Your task to perform on an android device: install app "PlayWell" Image 0: 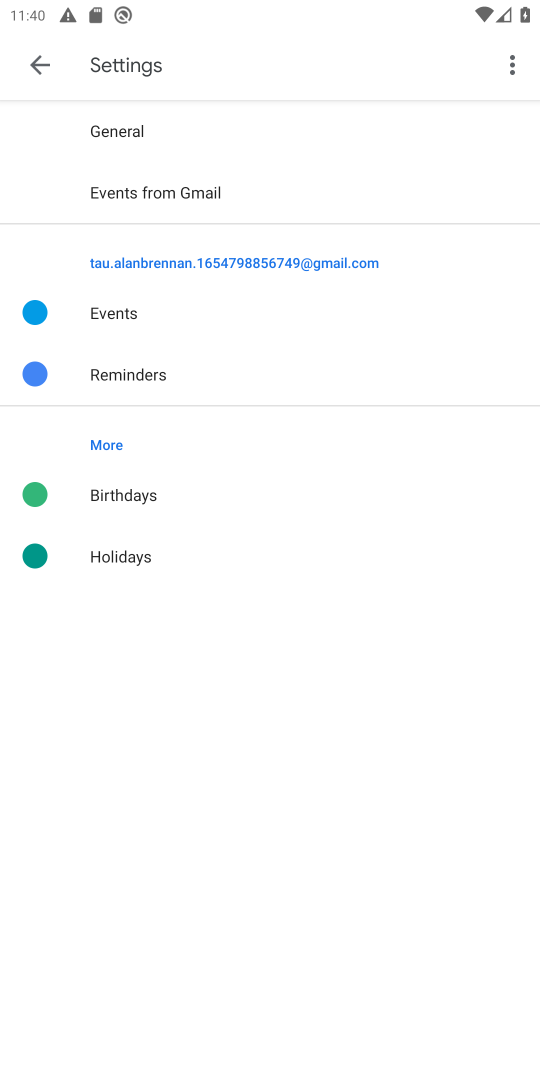
Step 0: press home button
Your task to perform on an android device: install app "PlayWell" Image 1: 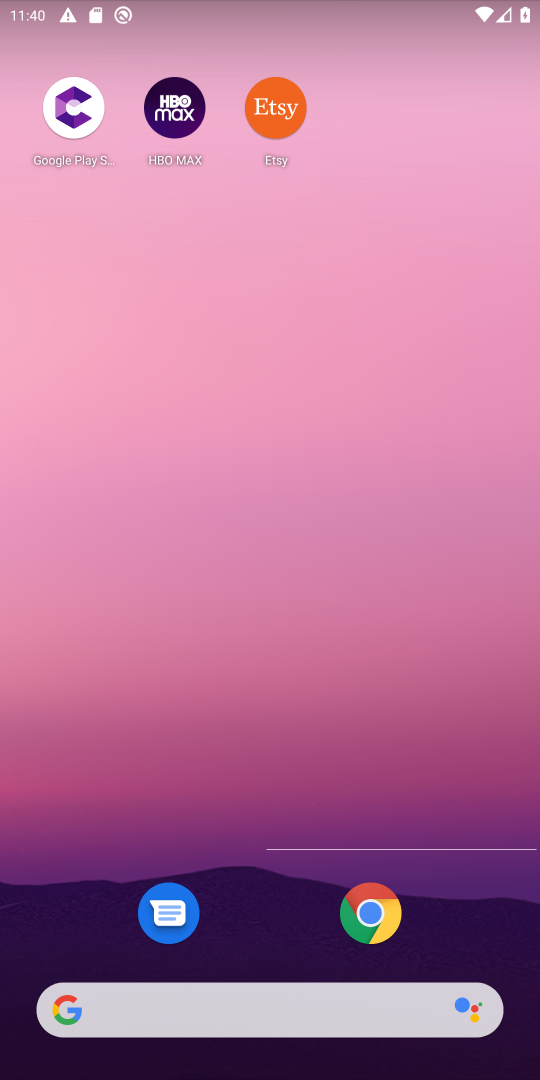
Step 1: drag from (209, 952) to (294, 304)
Your task to perform on an android device: install app "PlayWell" Image 2: 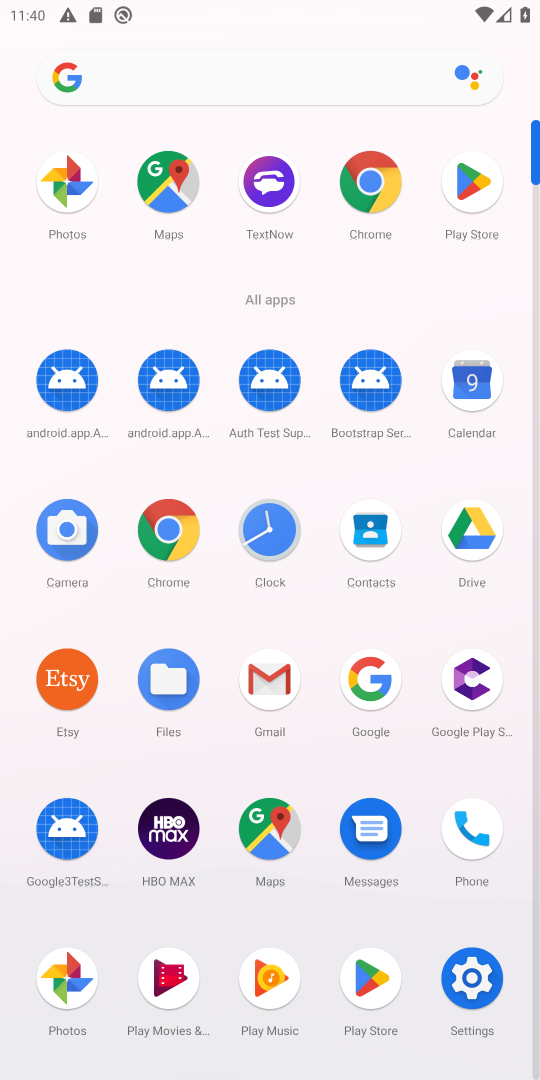
Step 2: click (454, 185)
Your task to perform on an android device: install app "PlayWell" Image 3: 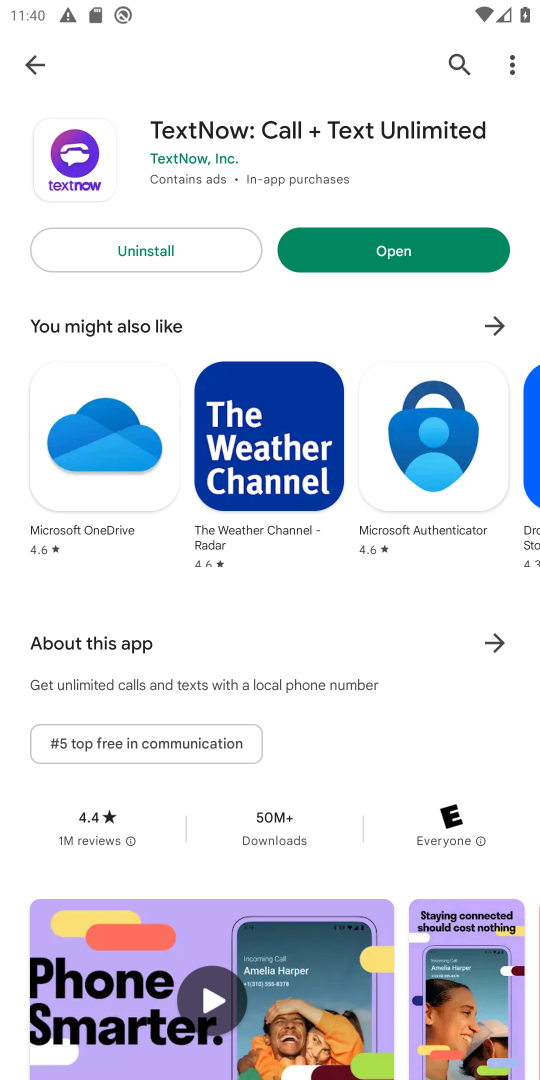
Step 3: click (18, 64)
Your task to perform on an android device: install app "PlayWell" Image 4: 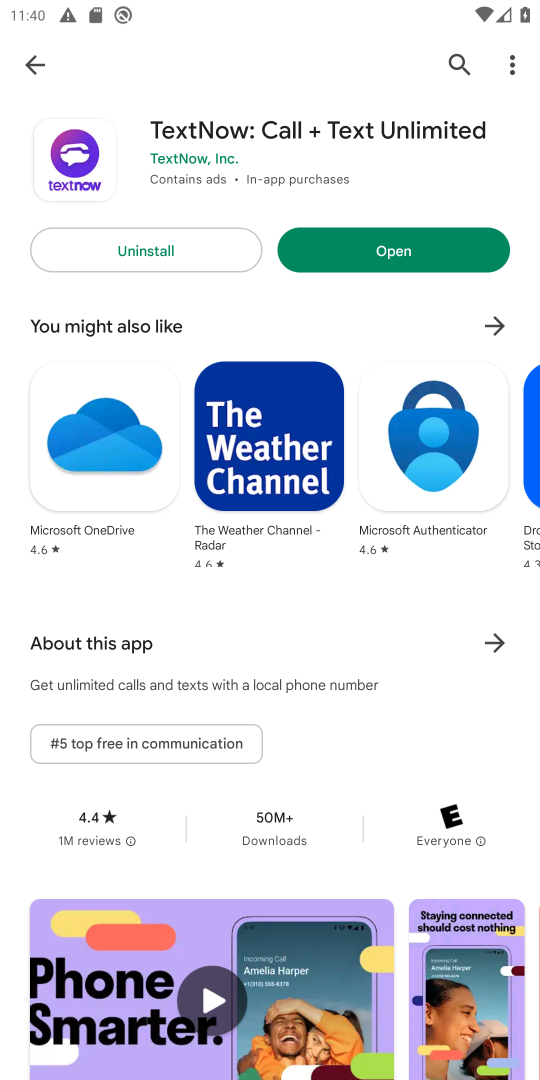
Step 4: click (49, 62)
Your task to perform on an android device: install app "PlayWell" Image 5: 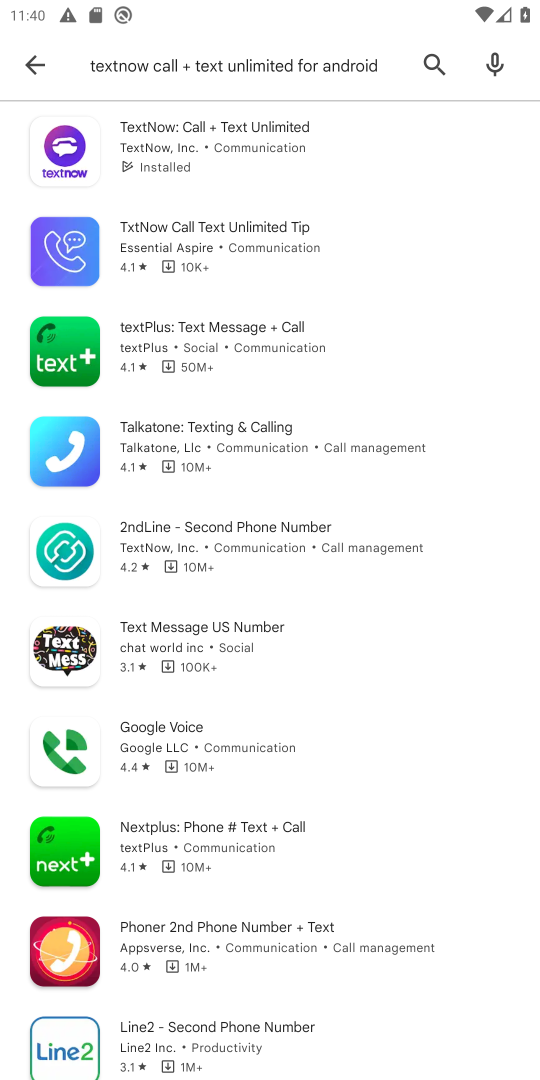
Step 5: click (49, 62)
Your task to perform on an android device: install app "PlayWell" Image 6: 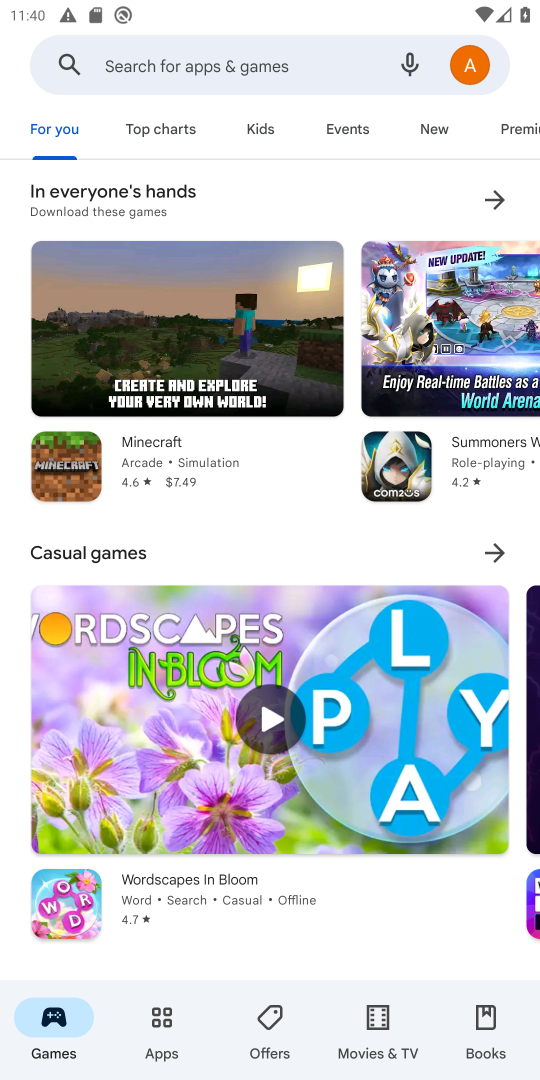
Step 6: click (252, 50)
Your task to perform on an android device: install app "PlayWell" Image 7: 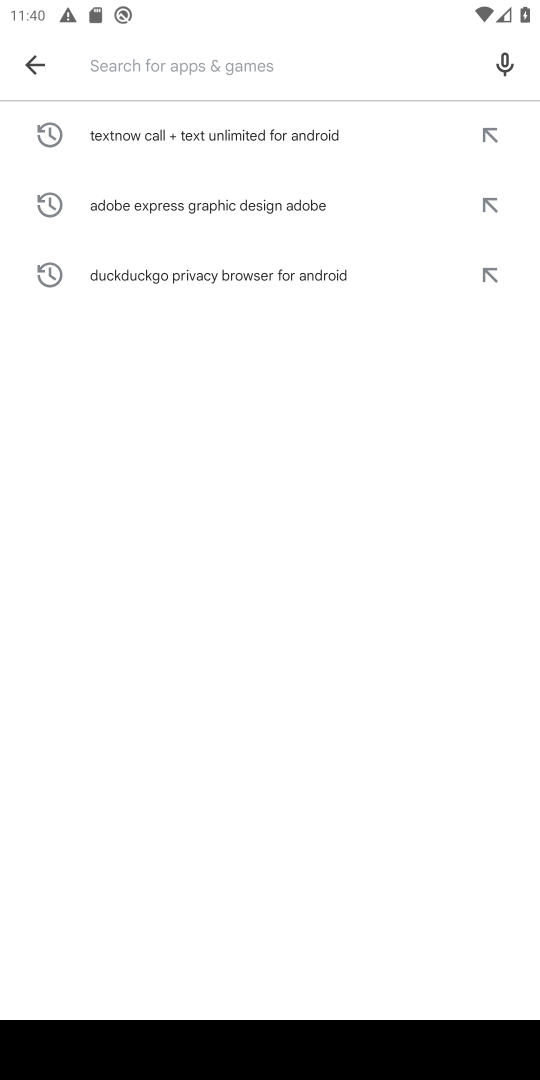
Step 7: type "PlayWell "
Your task to perform on an android device: install app "PlayWell" Image 8: 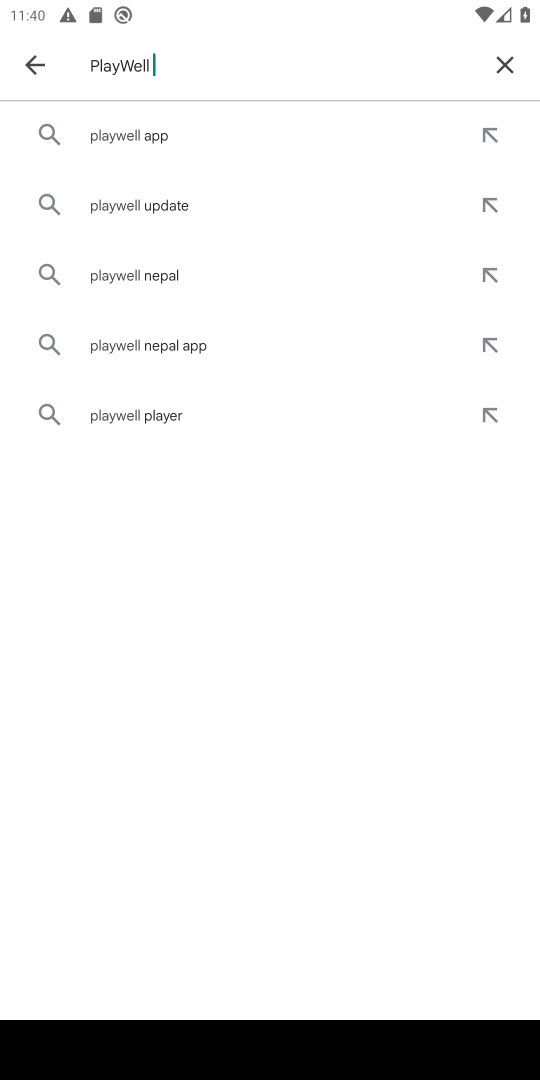
Step 8: click (142, 146)
Your task to perform on an android device: install app "PlayWell" Image 9: 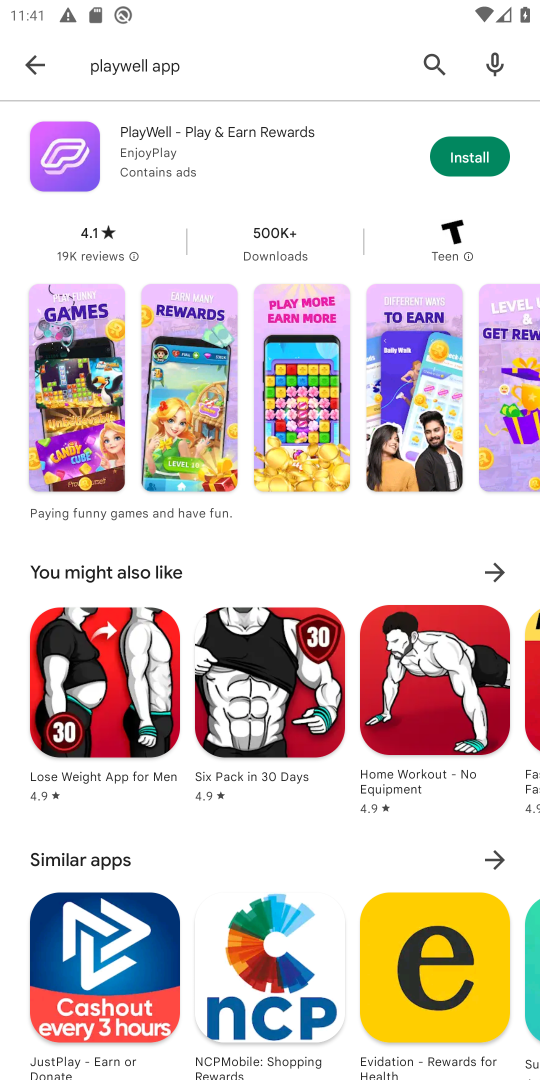
Step 9: click (455, 168)
Your task to perform on an android device: install app "PlayWell" Image 10: 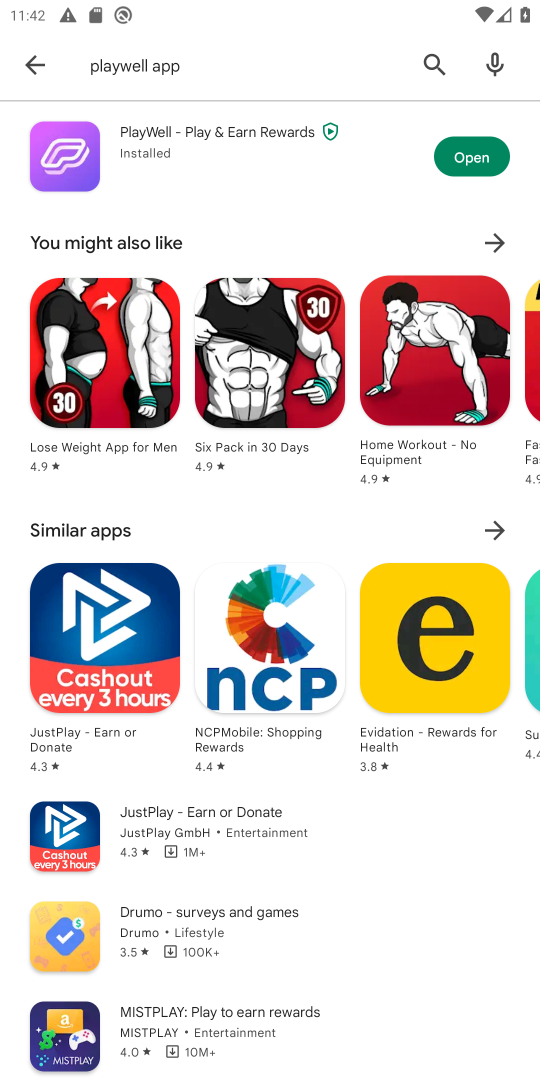
Step 10: click (473, 148)
Your task to perform on an android device: install app "PlayWell" Image 11: 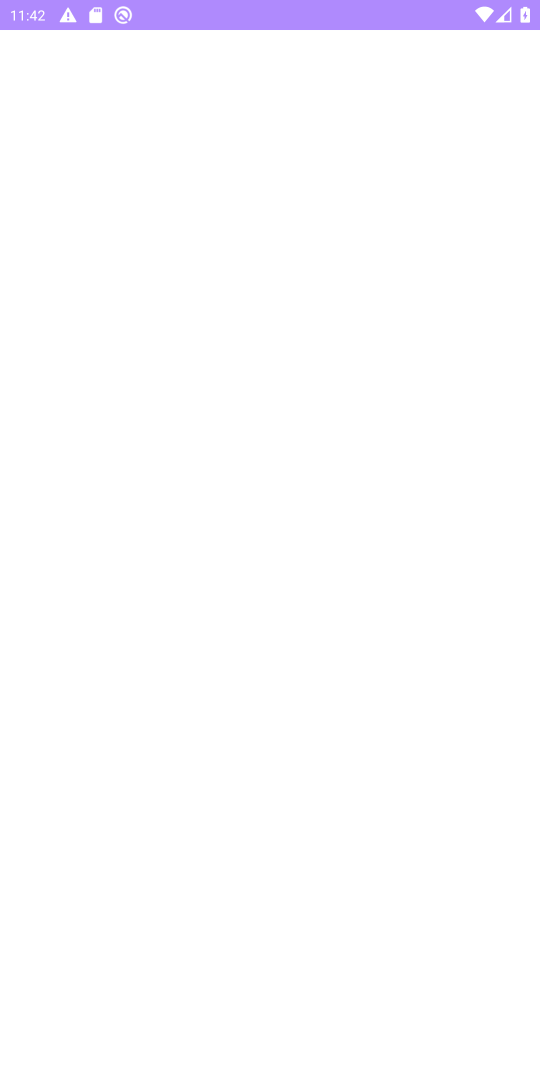
Step 11: task complete